Your task to perform on an android device: see creations saved in the google photos Image 0: 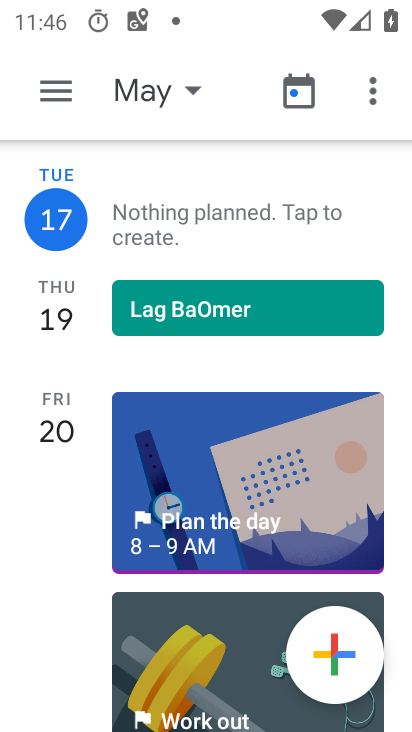
Step 0: press home button
Your task to perform on an android device: see creations saved in the google photos Image 1: 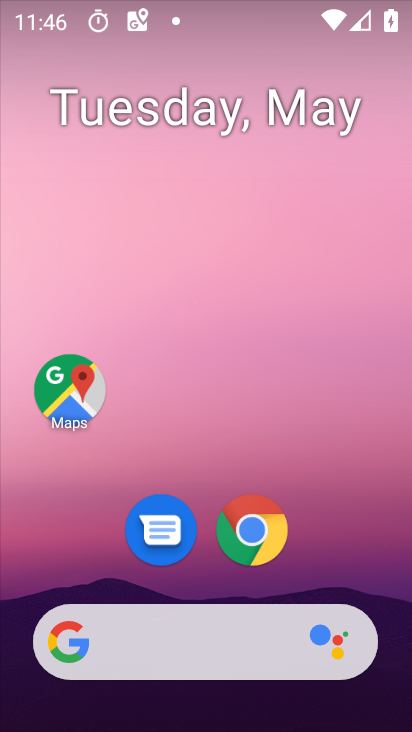
Step 1: drag from (244, 605) to (329, 49)
Your task to perform on an android device: see creations saved in the google photos Image 2: 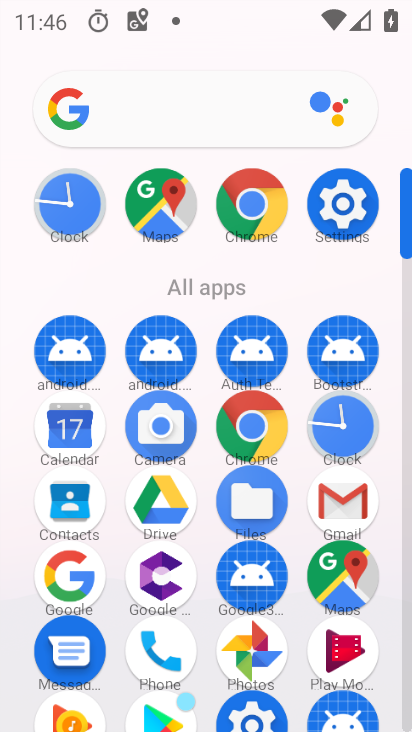
Step 2: click (256, 657)
Your task to perform on an android device: see creations saved in the google photos Image 3: 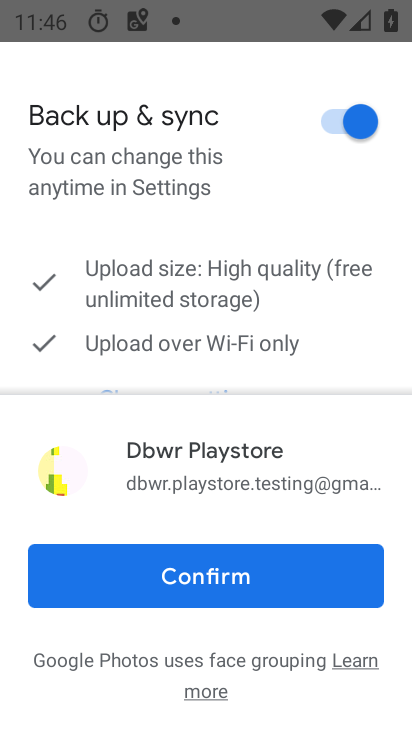
Step 3: click (135, 565)
Your task to perform on an android device: see creations saved in the google photos Image 4: 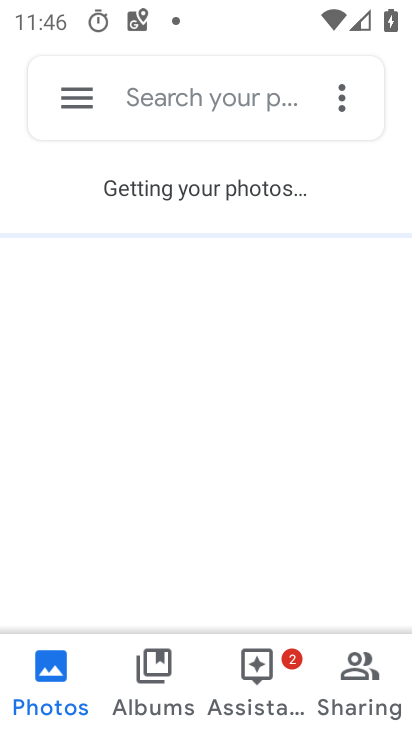
Step 4: click (341, 687)
Your task to perform on an android device: see creations saved in the google photos Image 5: 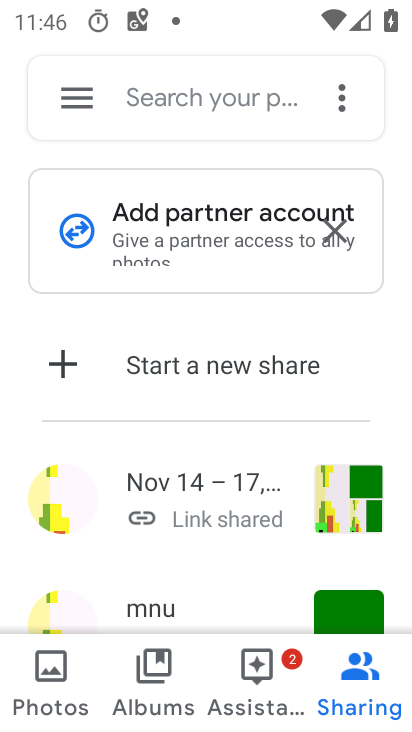
Step 5: task complete